Your task to perform on an android device: Open Maps and search for coffee Image 0: 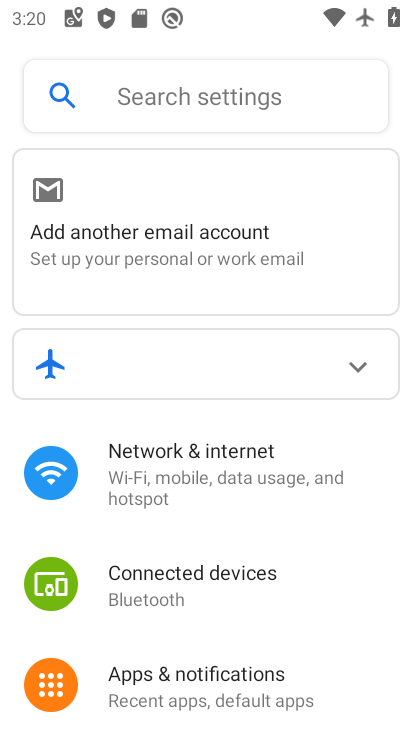
Step 0: press home button
Your task to perform on an android device: Open Maps and search for coffee Image 1: 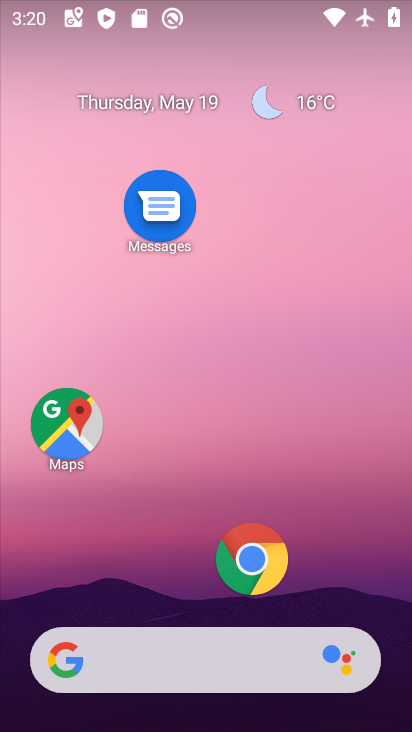
Step 1: click (55, 409)
Your task to perform on an android device: Open Maps and search for coffee Image 2: 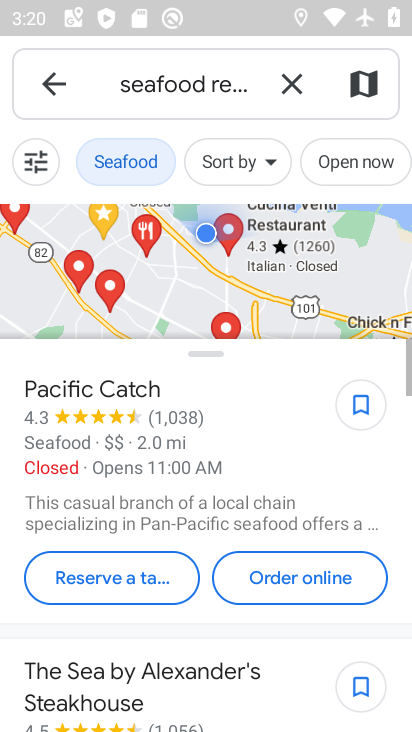
Step 2: click (283, 90)
Your task to perform on an android device: Open Maps and search for coffee Image 3: 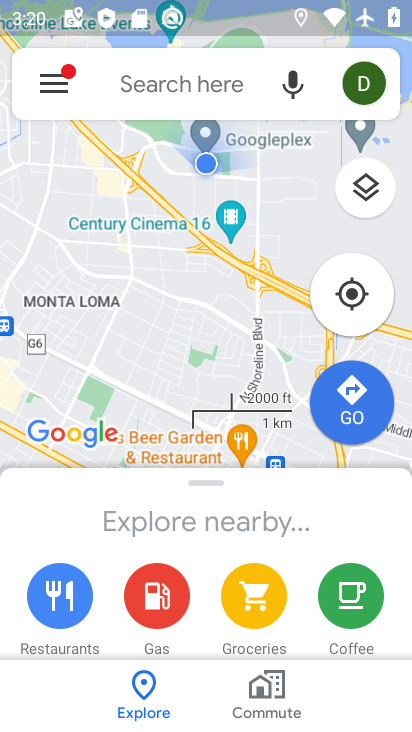
Step 3: click (211, 90)
Your task to perform on an android device: Open Maps and search for coffee Image 4: 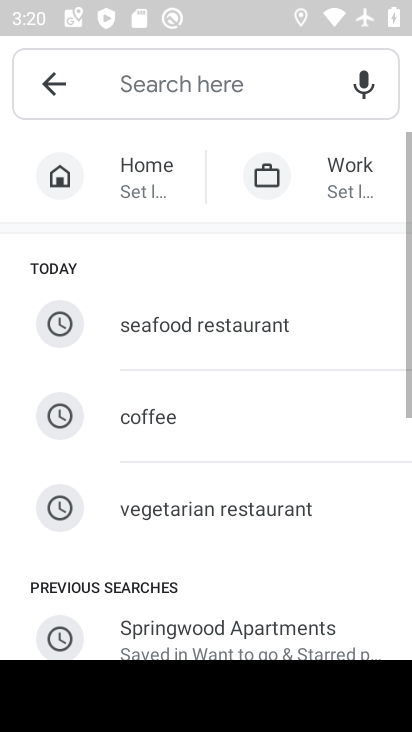
Step 4: click (165, 422)
Your task to perform on an android device: Open Maps and search for coffee Image 5: 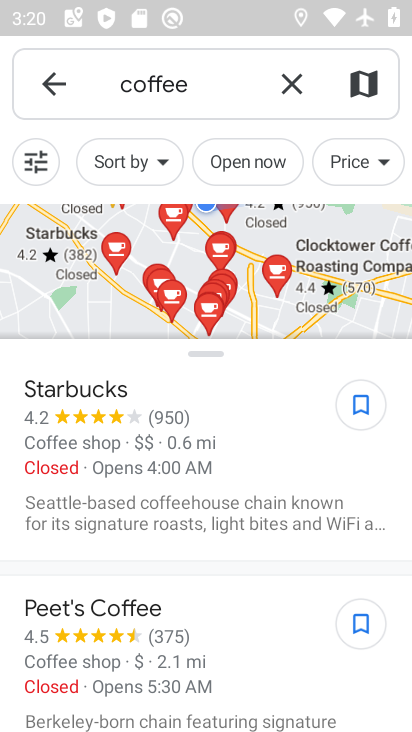
Step 5: task complete